Your task to perform on an android device: refresh tabs in the chrome app Image 0: 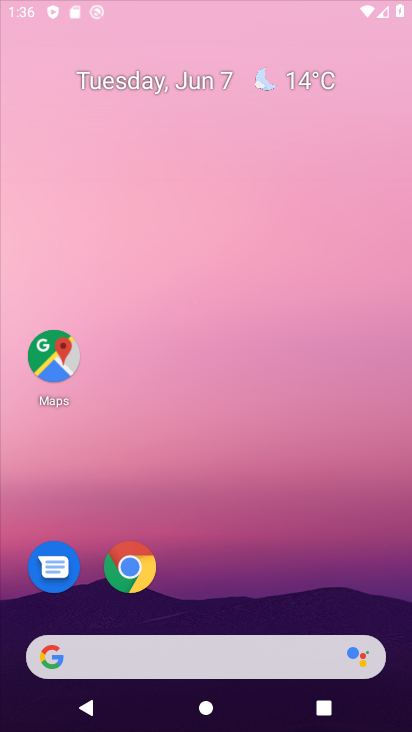
Step 0: press home button
Your task to perform on an android device: refresh tabs in the chrome app Image 1: 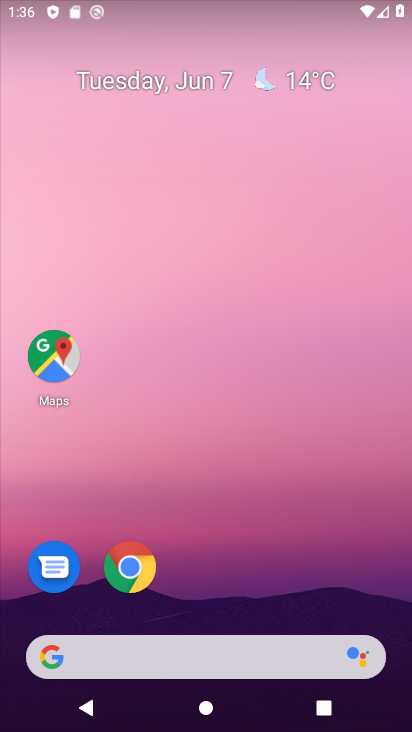
Step 1: drag from (343, 550) to (405, 340)
Your task to perform on an android device: refresh tabs in the chrome app Image 2: 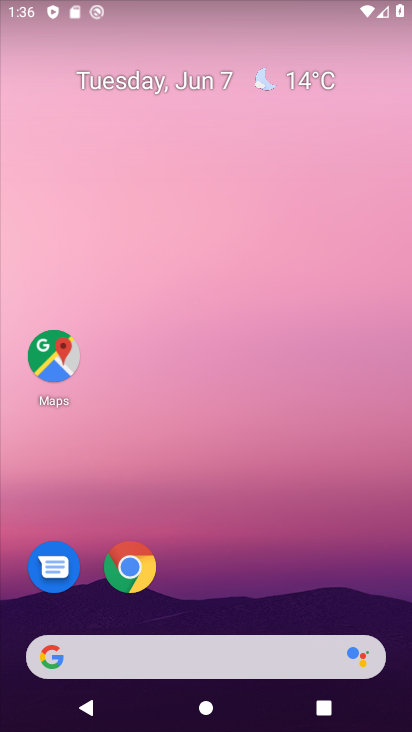
Step 2: drag from (334, 567) to (322, 7)
Your task to perform on an android device: refresh tabs in the chrome app Image 3: 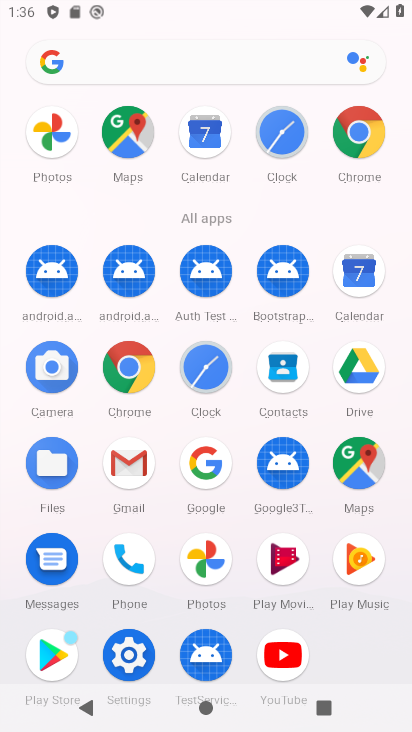
Step 3: click (361, 159)
Your task to perform on an android device: refresh tabs in the chrome app Image 4: 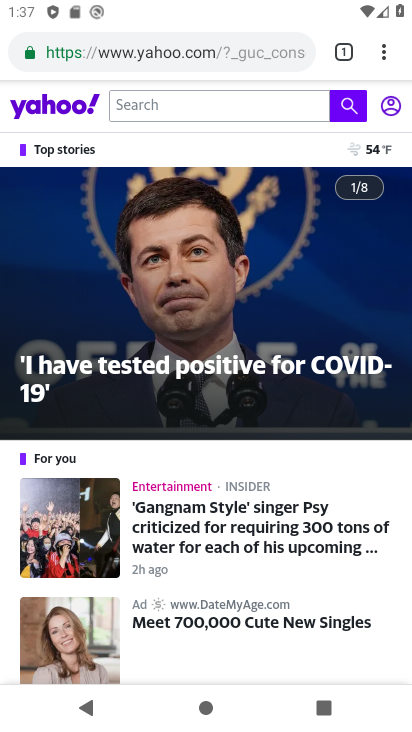
Step 4: click (393, 63)
Your task to perform on an android device: refresh tabs in the chrome app Image 5: 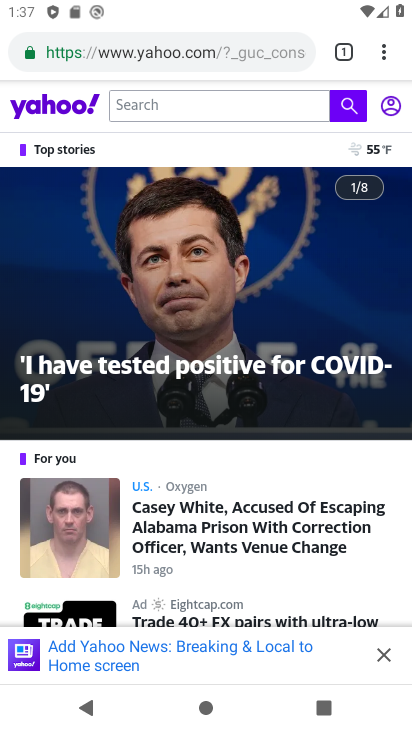
Step 5: click (386, 60)
Your task to perform on an android device: refresh tabs in the chrome app Image 6: 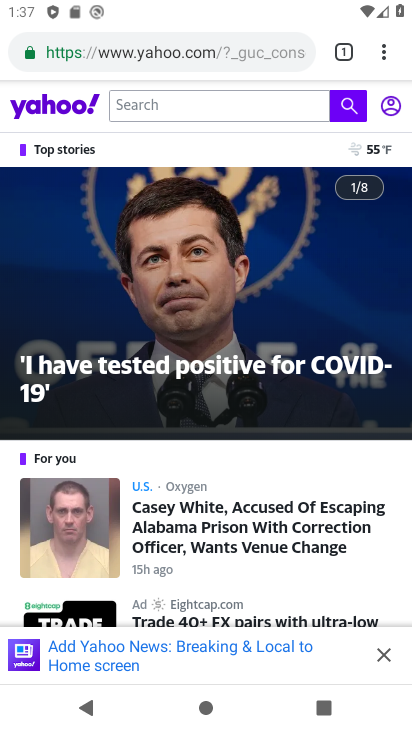
Step 6: task complete